Your task to perform on an android device: Check the weather Image 0: 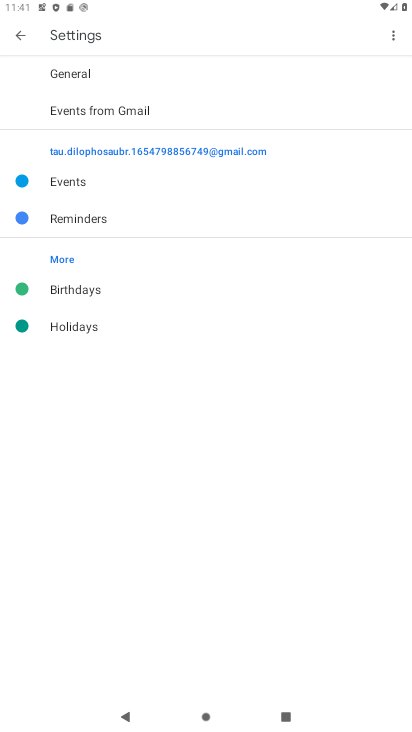
Step 0: press home button
Your task to perform on an android device: Check the weather Image 1: 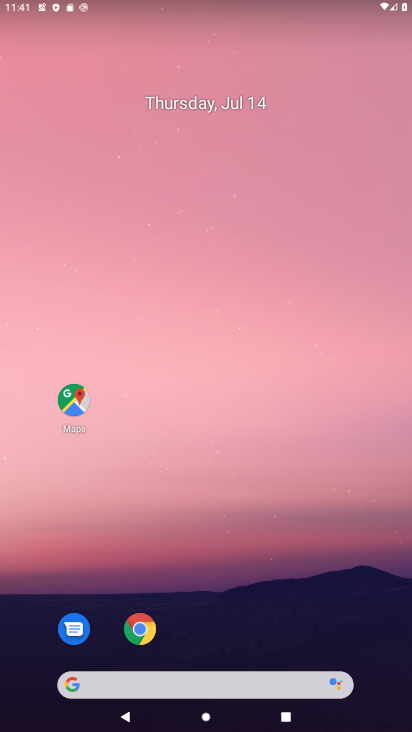
Step 1: click (73, 690)
Your task to perform on an android device: Check the weather Image 2: 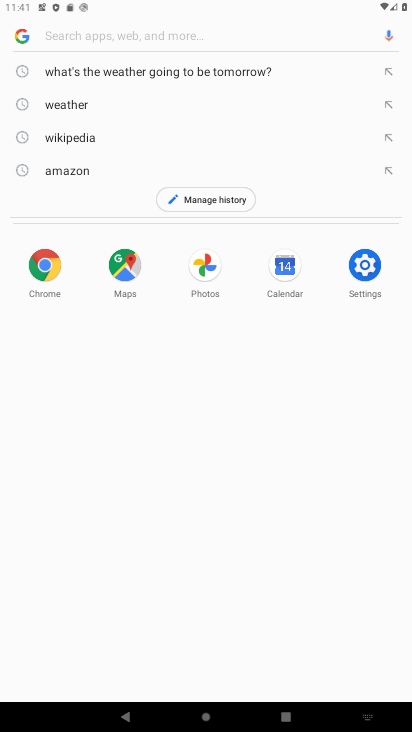
Step 2: click (76, 99)
Your task to perform on an android device: Check the weather Image 3: 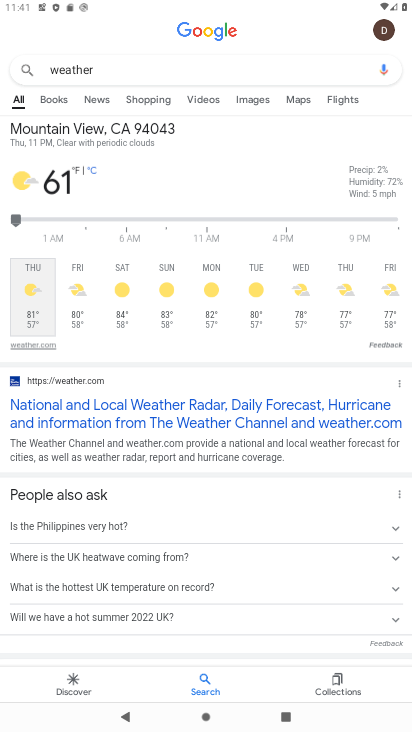
Step 3: task complete